Your task to perform on an android device: Open the web browser Image 0: 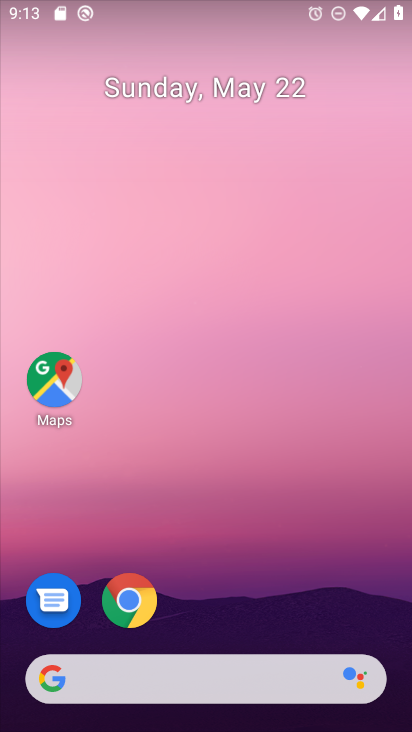
Step 0: drag from (207, 631) to (287, 101)
Your task to perform on an android device: Open the web browser Image 1: 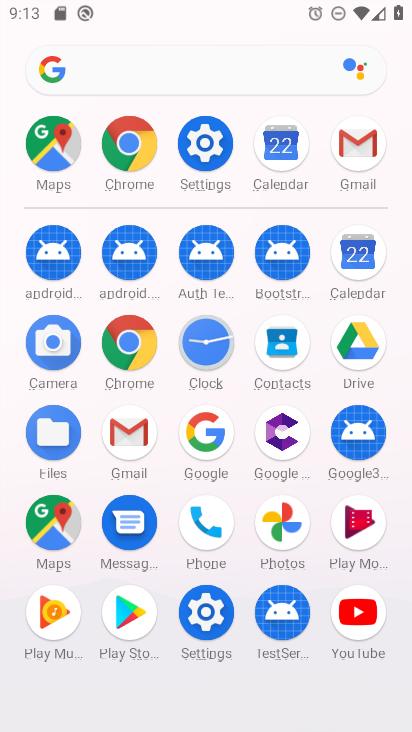
Step 1: click (129, 144)
Your task to perform on an android device: Open the web browser Image 2: 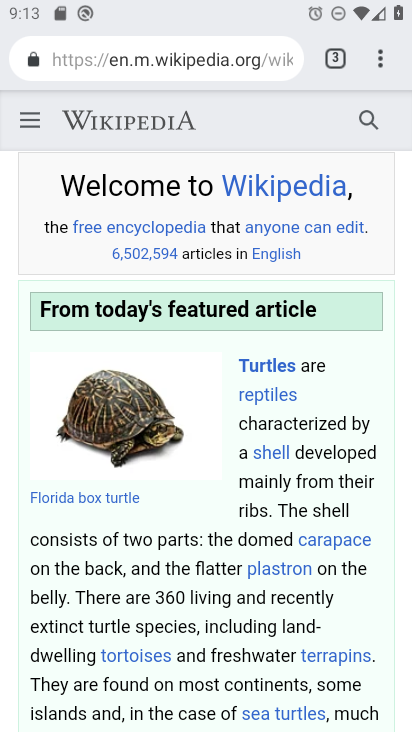
Step 2: task complete